Your task to perform on an android device: Go to sound settings Image 0: 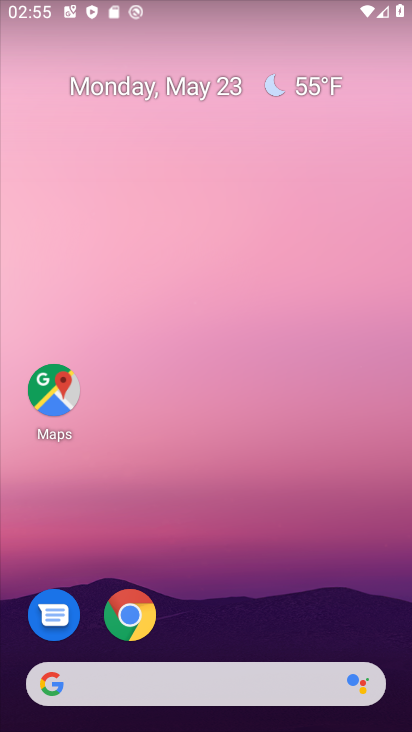
Step 0: drag from (364, 627) to (375, 192)
Your task to perform on an android device: Go to sound settings Image 1: 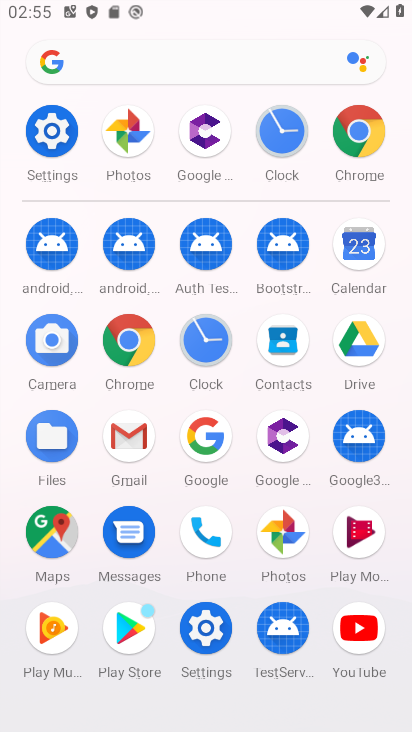
Step 1: click (206, 642)
Your task to perform on an android device: Go to sound settings Image 2: 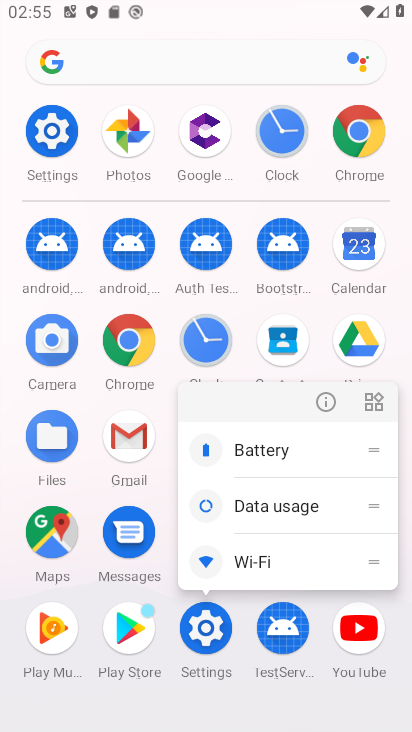
Step 2: click (206, 642)
Your task to perform on an android device: Go to sound settings Image 3: 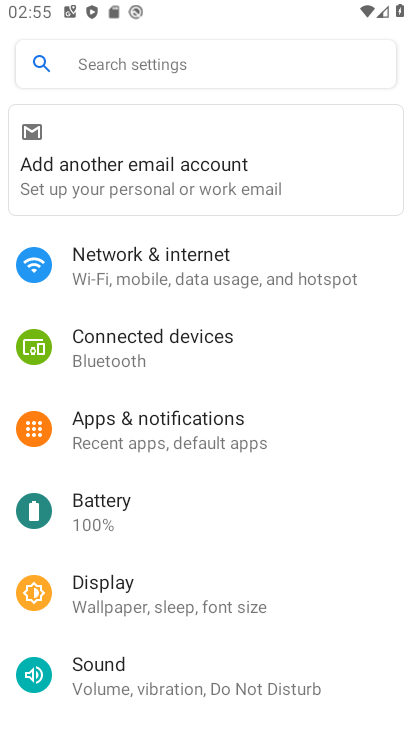
Step 3: drag from (334, 589) to (343, 510)
Your task to perform on an android device: Go to sound settings Image 4: 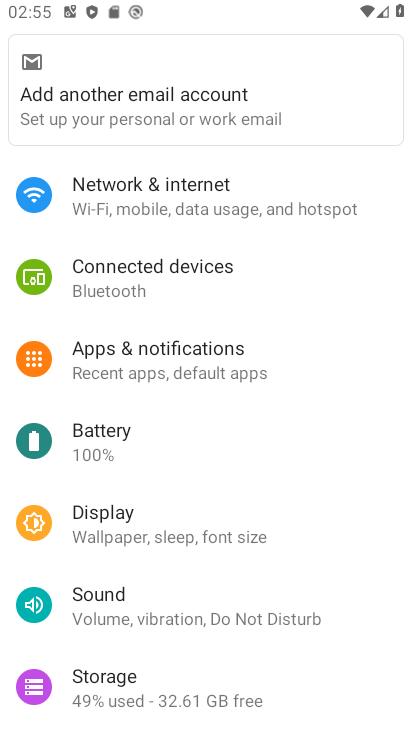
Step 4: drag from (334, 655) to (336, 545)
Your task to perform on an android device: Go to sound settings Image 5: 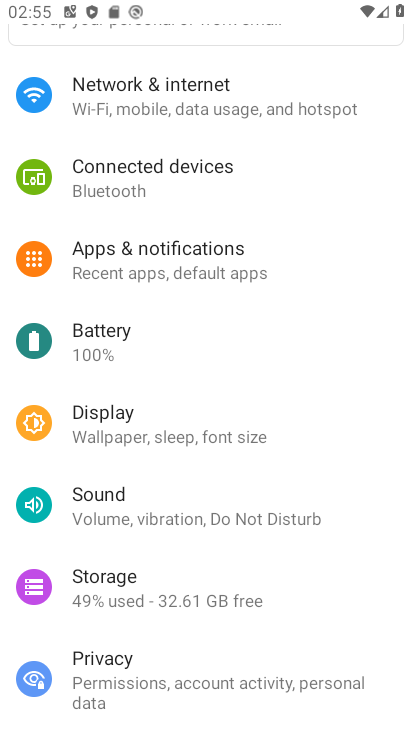
Step 5: drag from (318, 661) to (319, 575)
Your task to perform on an android device: Go to sound settings Image 6: 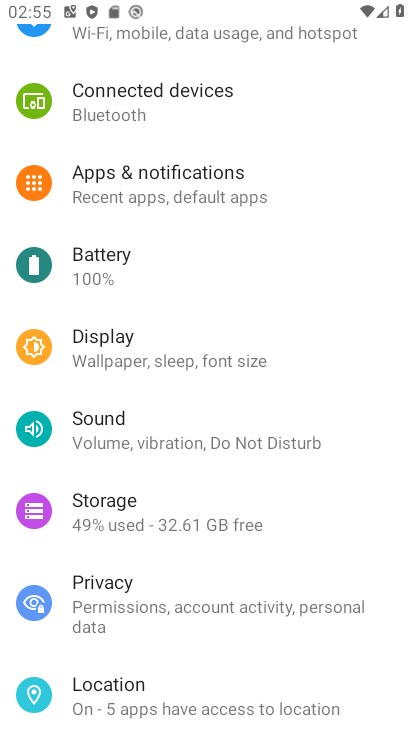
Step 6: drag from (324, 654) to (329, 560)
Your task to perform on an android device: Go to sound settings Image 7: 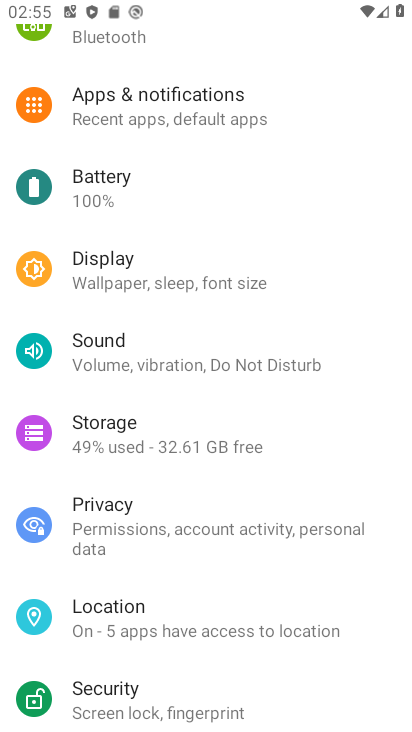
Step 7: drag from (349, 670) to (350, 581)
Your task to perform on an android device: Go to sound settings Image 8: 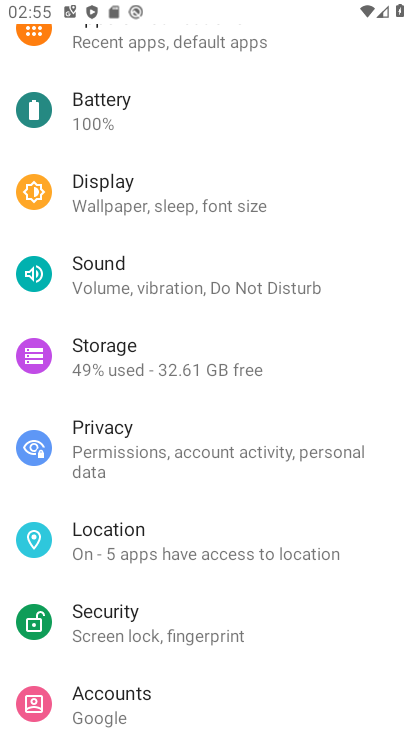
Step 8: drag from (354, 678) to (361, 590)
Your task to perform on an android device: Go to sound settings Image 9: 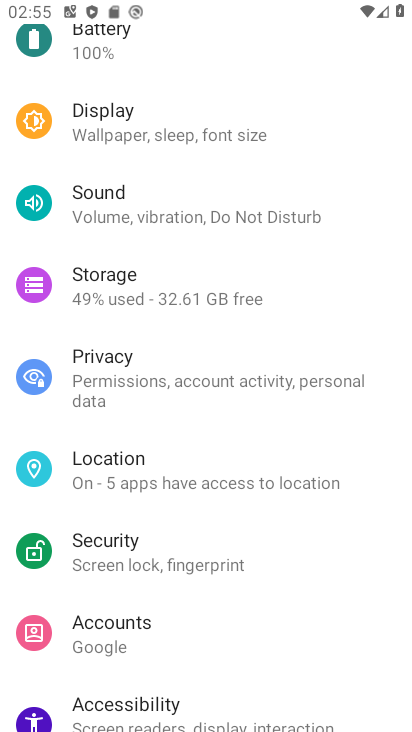
Step 9: drag from (347, 672) to (361, 581)
Your task to perform on an android device: Go to sound settings Image 10: 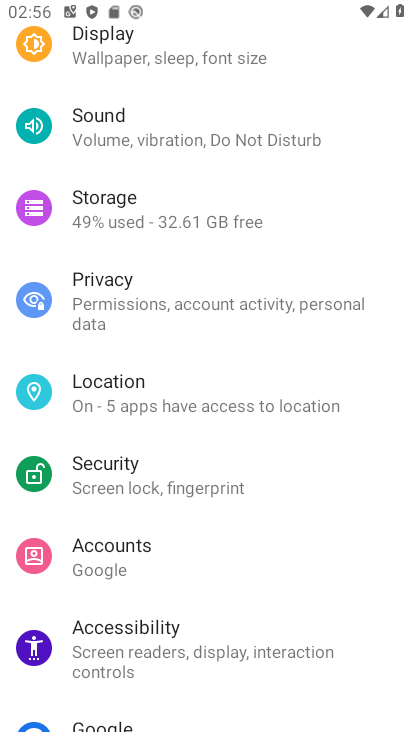
Step 10: drag from (364, 693) to (363, 566)
Your task to perform on an android device: Go to sound settings Image 11: 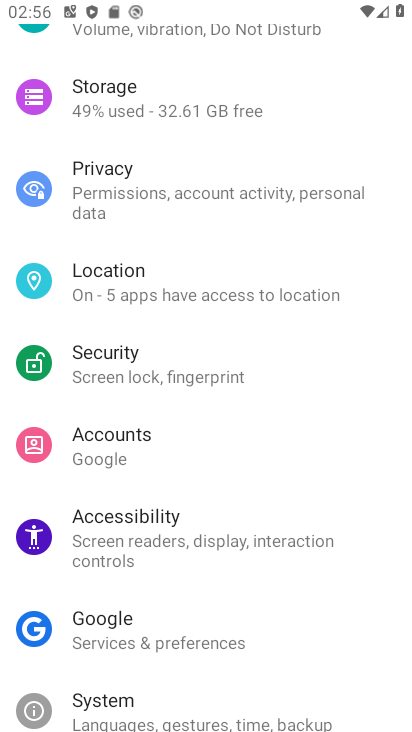
Step 11: drag from (363, 671) to (367, 519)
Your task to perform on an android device: Go to sound settings Image 12: 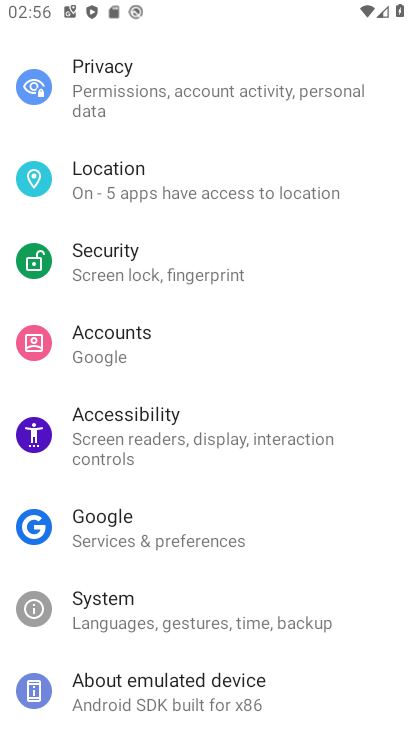
Step 12: drag from (369, 658) to (367, 516)
Your task to perform on an android device: Go to sound settings Image 13: 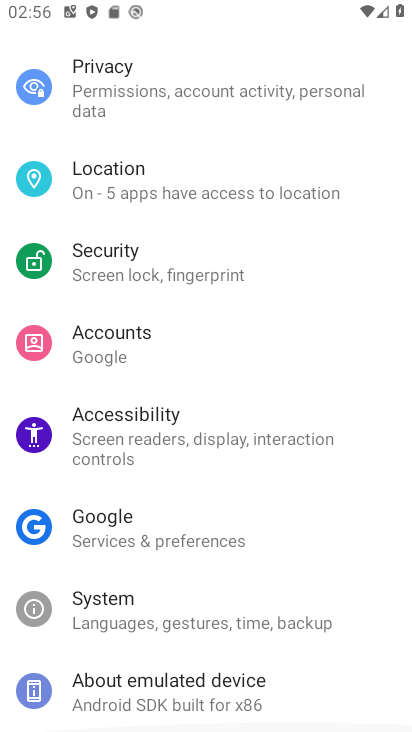
Step 13: drag from (355, 448) to (350, 535)
Your task to perform on an android device: Go to sound settings Image 14: 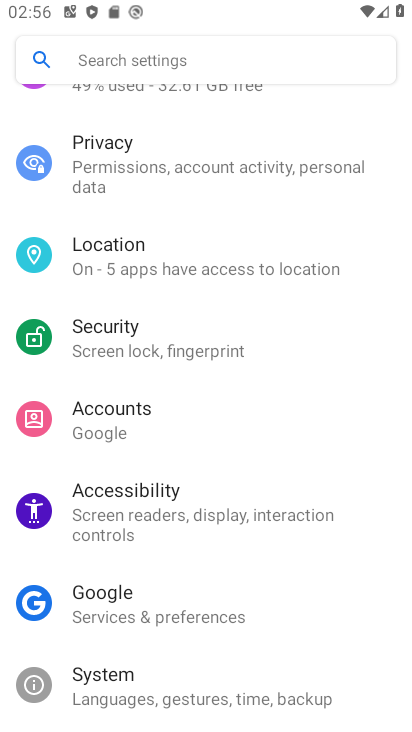
Step 14: drag from (348, 438) to (343, 554)
Your task to perform on an android device: Go to sound settings Image 15: 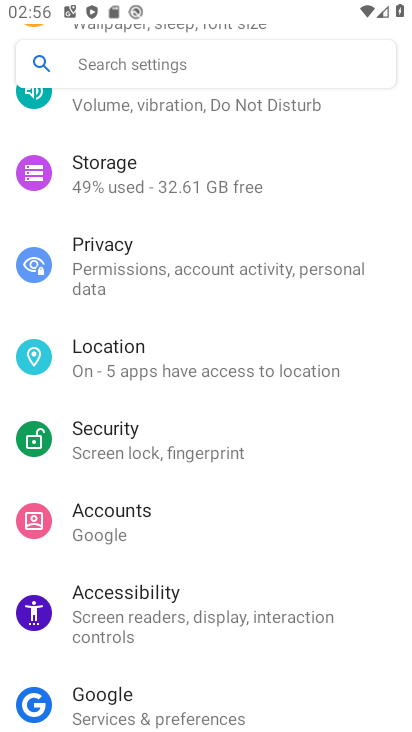
Step 15: drag from (345, 447) to (344, 542)
Your task to perform on an android device: Go to sound settings Image 16: 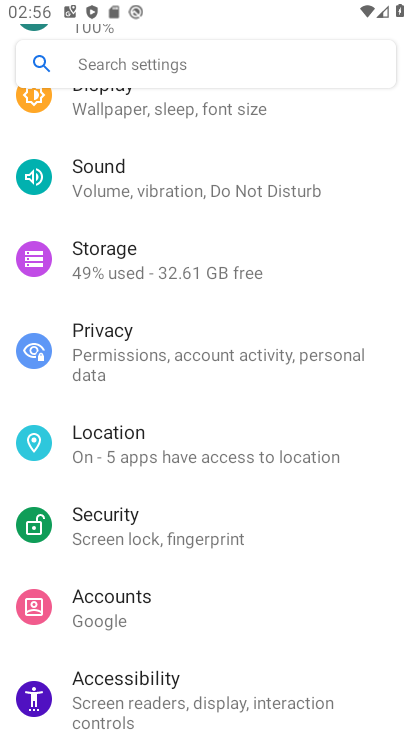
Step 16: drag from (357, 422) to (347, 531)
Your task to perform on an android device: Go to sound settings Image 17: 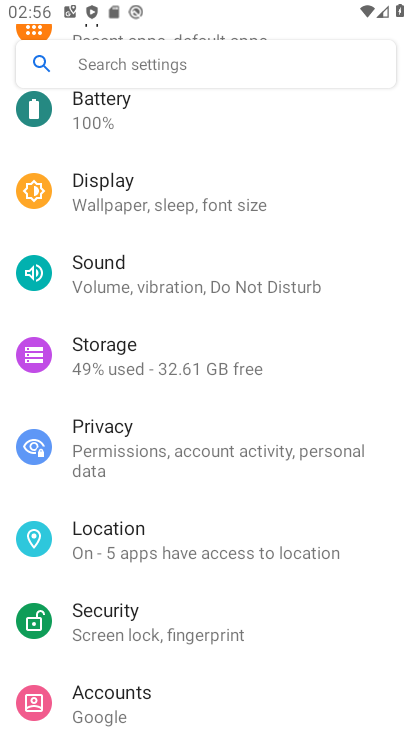
Step 17: drag from (374, 428) to (366, 547)
Your task to perform on an android device: Go to sound settings Image 18: 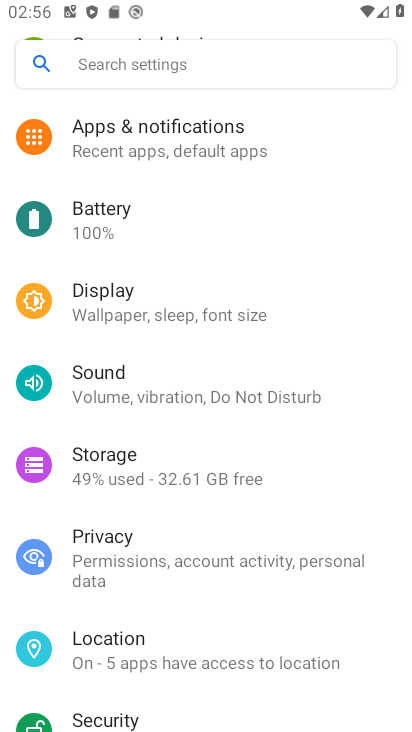
Step 18: drag from (360, 427) to (347, 548)
Your task to perform on an android device: Go to sound settings Image 19: 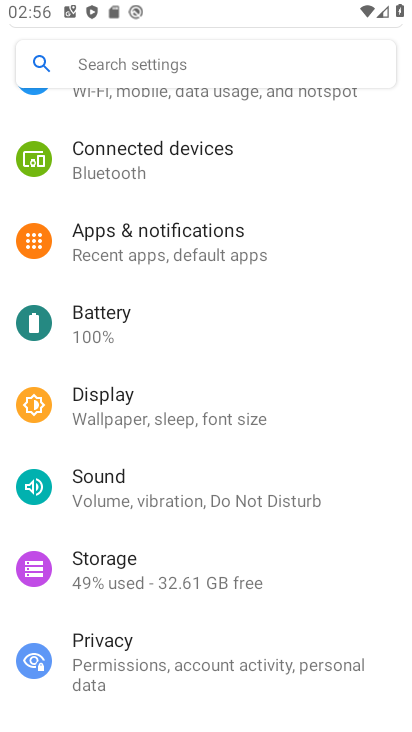
Step 19: drag from (351, 412) to (342, 520)
Your task to perform on an android device: Go to sound settings Image 20: 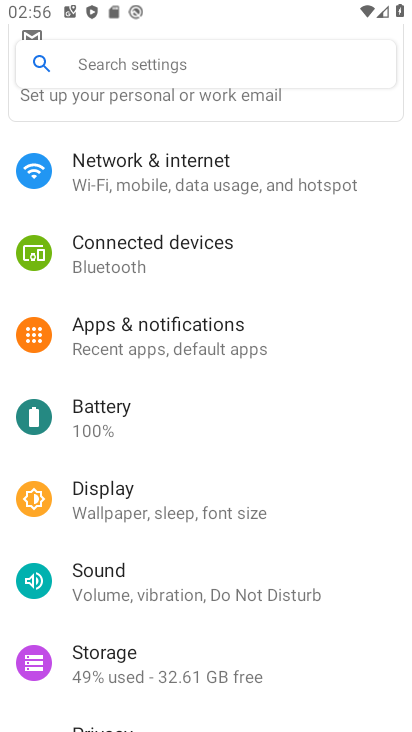
Step 20: click (194, 607)
Your task to perform on an android device: Go to sound settings Image 21: 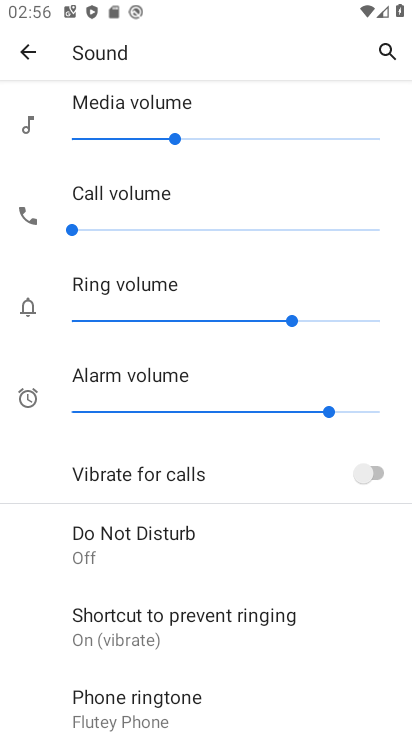
Step 21: task complete